Your task to perform on an android device: Open Chrome and go to settings Image 0: 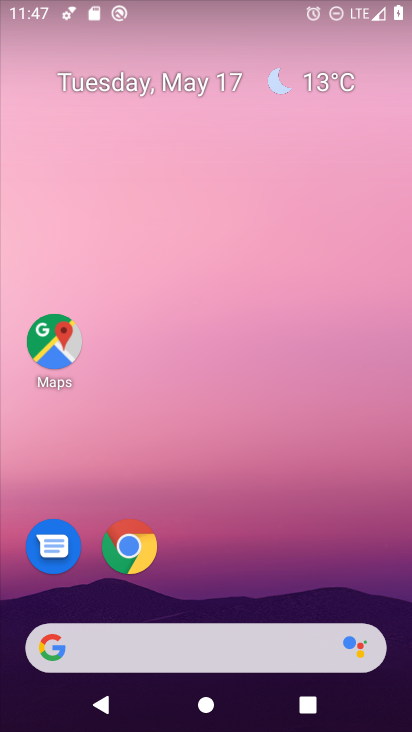
Step 0: click (115, 553)
Your task to perform on an android device: Open Chrome and go to settings Image 1: 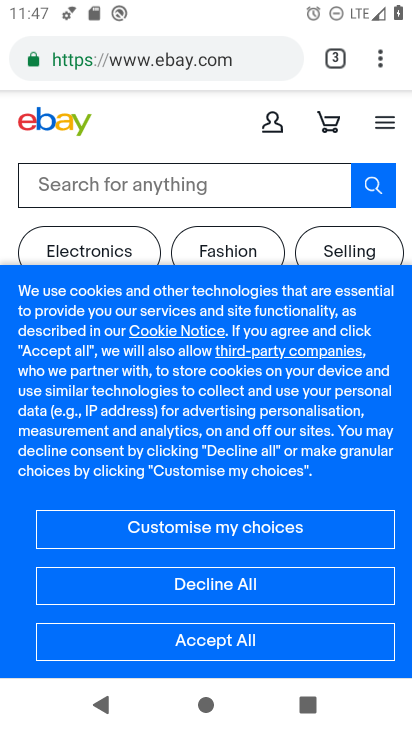
Step 1: click (381, 55)
Your task to perform on an android device: Open Chrome and go to settings Image 2: 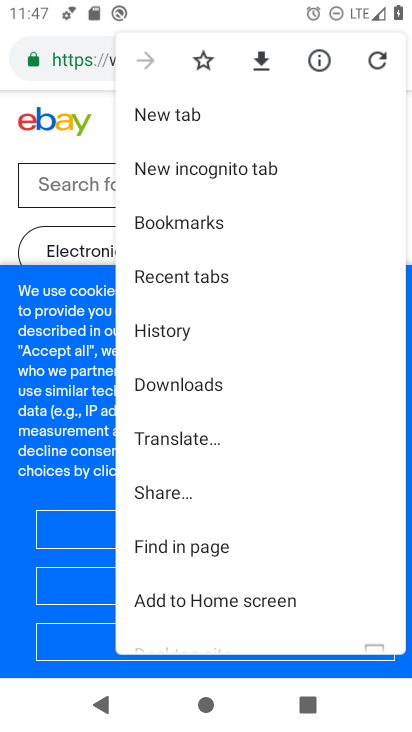
Step 2: drag from (232, 532) to (249, 225)
Your task to perform on an android device: Open Chrome and go to settings Image 3: 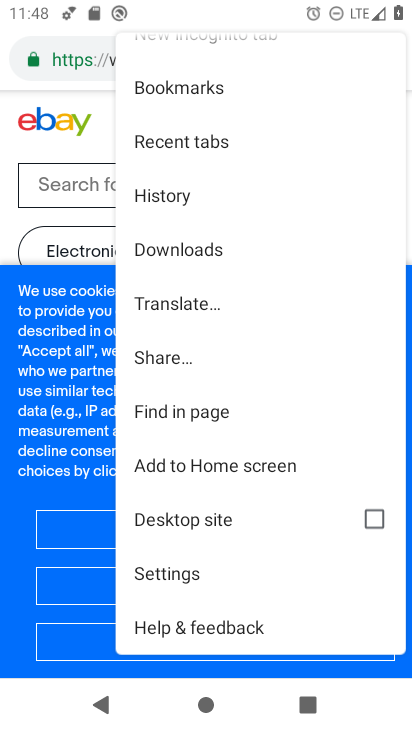
Step 3: click (169, 580)
Your task to perform on an android device: Open Chrome and go to settings Image 4: 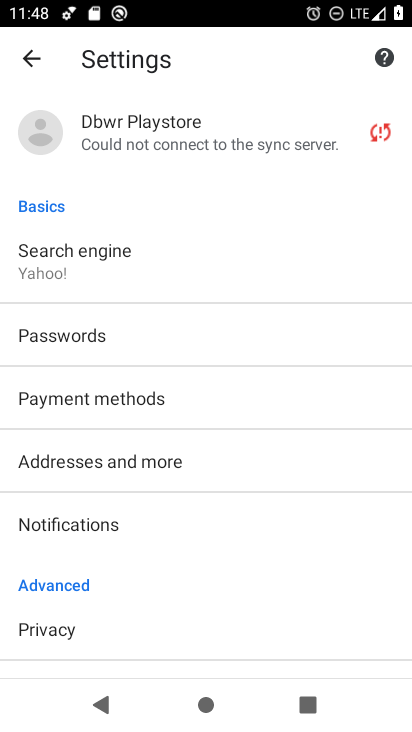
Step 4: task complete